Your task to perform on an android device: Check the news Image 0: 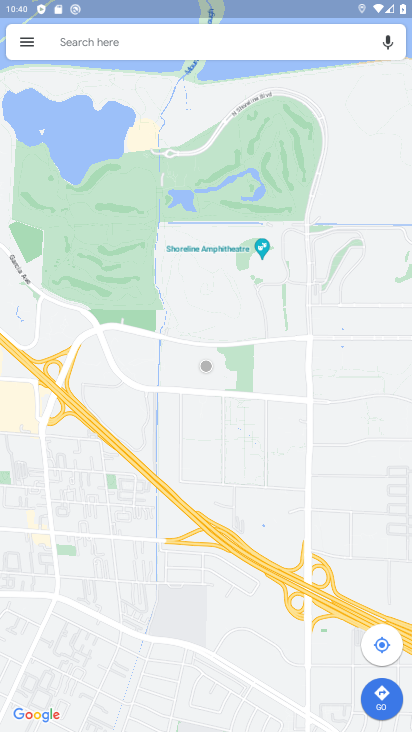
Step 0: press home button
Your task to perform on an android device: Check the news Image 1: 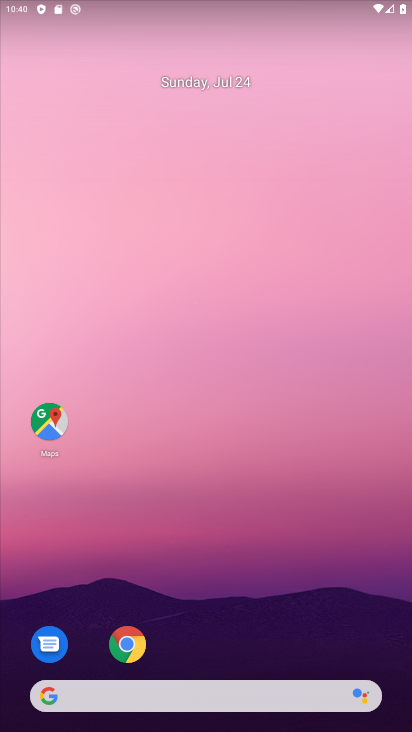
Step 1: click (126, 693)
Your task to perform on an android device: Check the news Image 2: 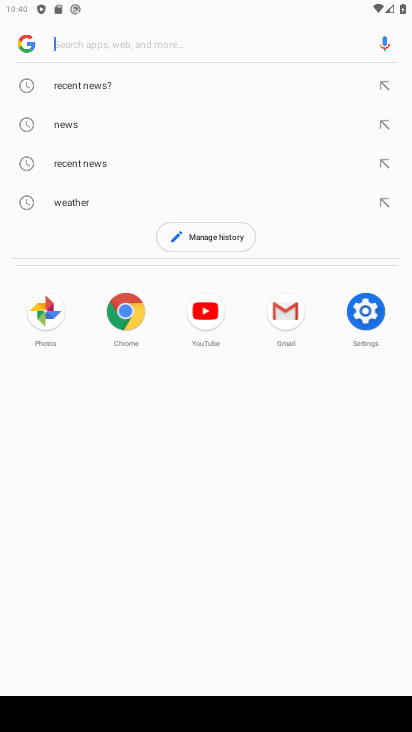
Step 2: click (54, 126)
Your task to perform on an android device: Check the news Image 3: 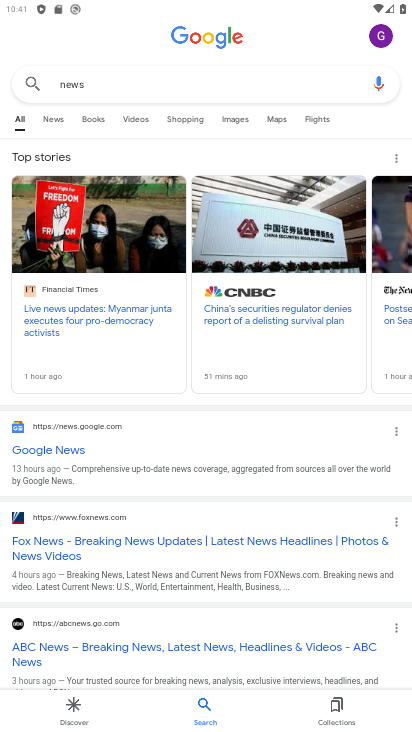
Step 3: click (49, 118)
Your task to perform on an android device: Check the news Image 4: 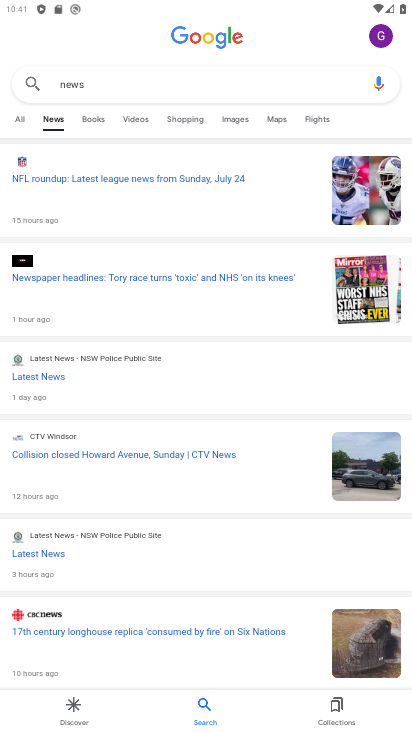
Step 4: task complete